Your task to perform on an android device: toggle improve location accuracy Image 0: 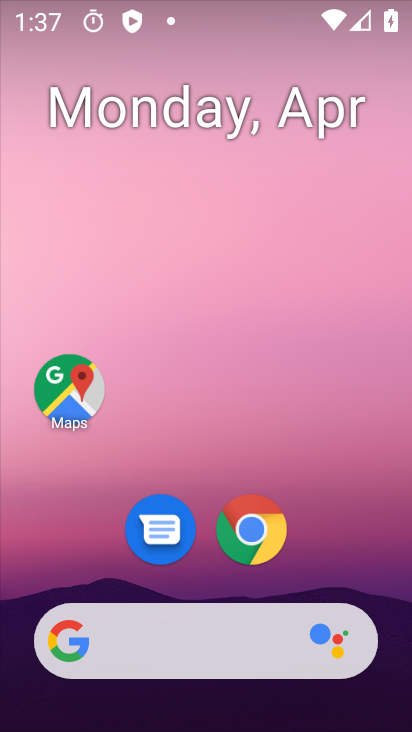
Step 0: drag from (312, 520) to (354, 186)
Your task to perform on an android device: toggle improve location accuracy Image 1: 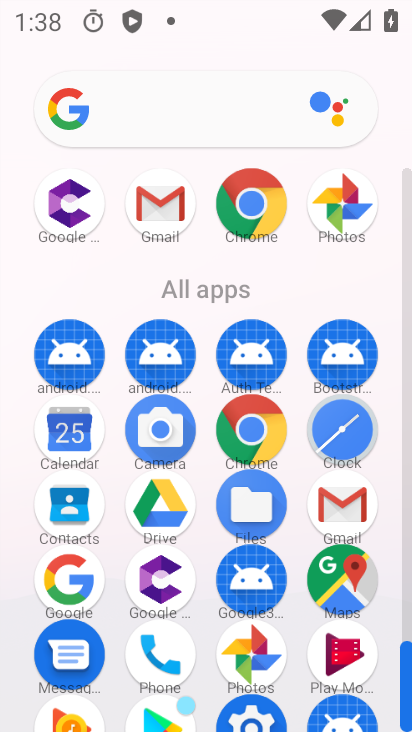
Step 1: drag from (192, 621) to (293, 188)
Your task to perform on an android device: toggle improve location accuracy Image 2: 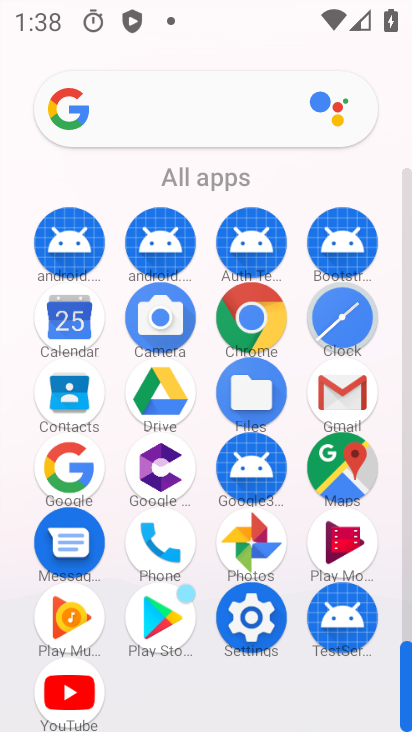
Step 2: click (251, 620)
Your task to perform on an android device: toggle improve location accuracy Image 3: 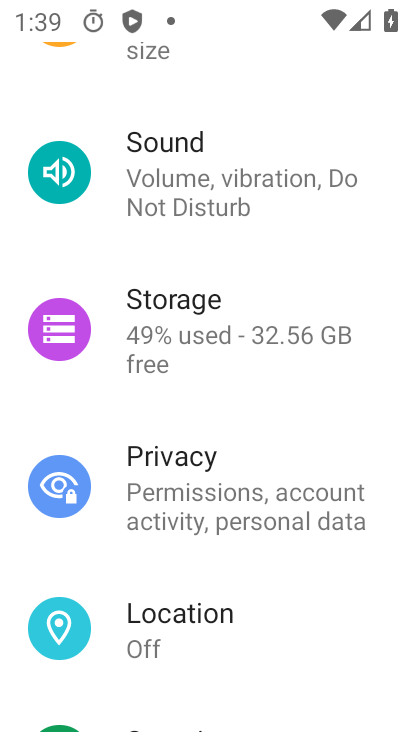
Step 3: drag from (236, 664) to (282, 328)
Your task to perform on an android device: toggle improve location accuracy Image 4: 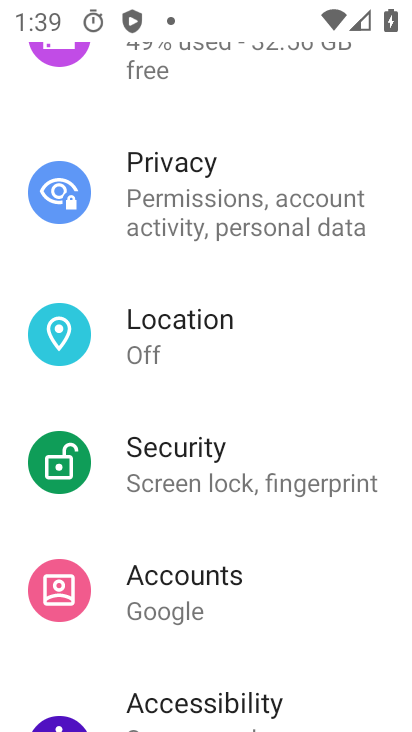
Step 4: click (203, 332)
Your task to perform on an android device: toggle improve location accuracy Image 5: 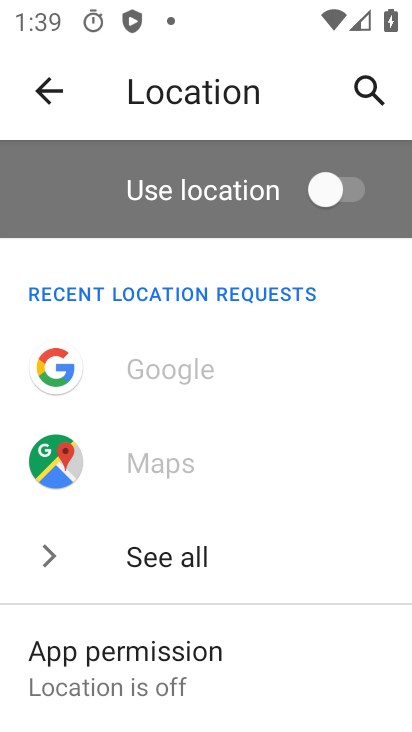
Step 5: drag from (274, 571) to (299, 242)
Your task to perform on an android device: toggle improve location accuracy Image 6: 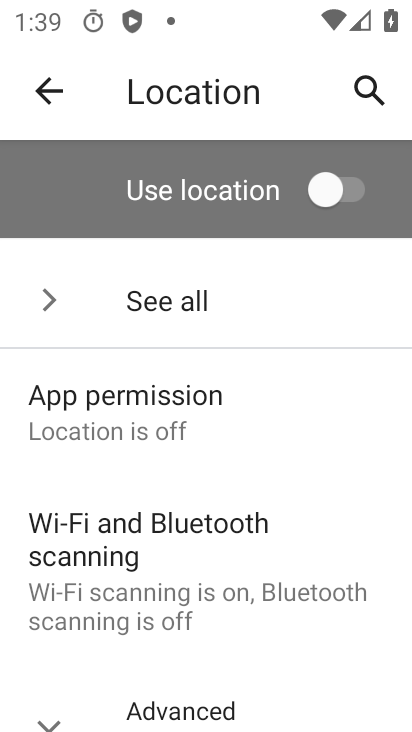
Step 6: drag from (227, 644) to (274, 315)
Your task to perform on an android device: toggle improve location accuracy Image 7: 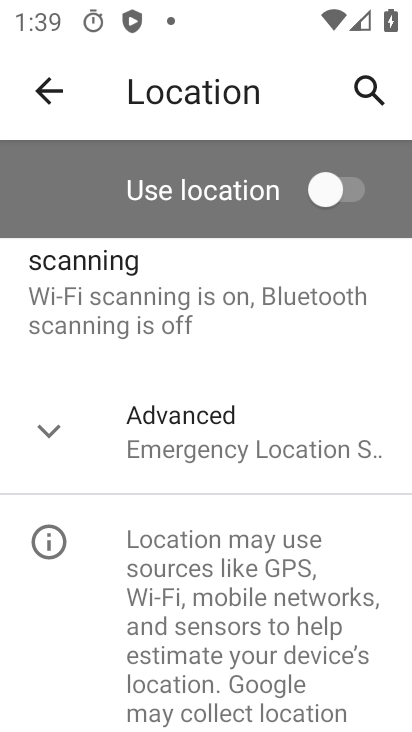
Step 7: click (240, 436)
Your task to perform on an android device: toggle improve location accuracy Image 8: 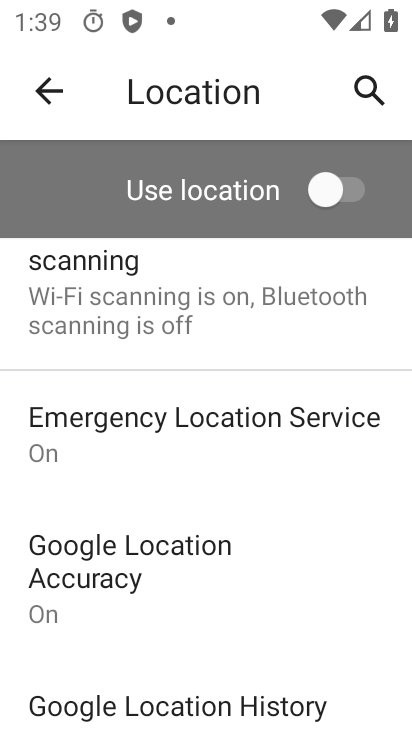
Step 8: drag from (276, 657) to (279, 456)
Your task to perform on an android device: toggle improve location accuracy Image 9: 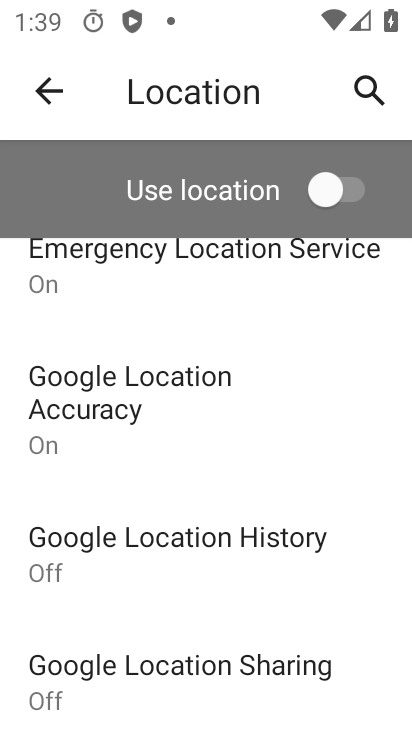
Step 9: click (226, 420)
Your task to perform on an android device: toggle improve location accuracy Image 10: 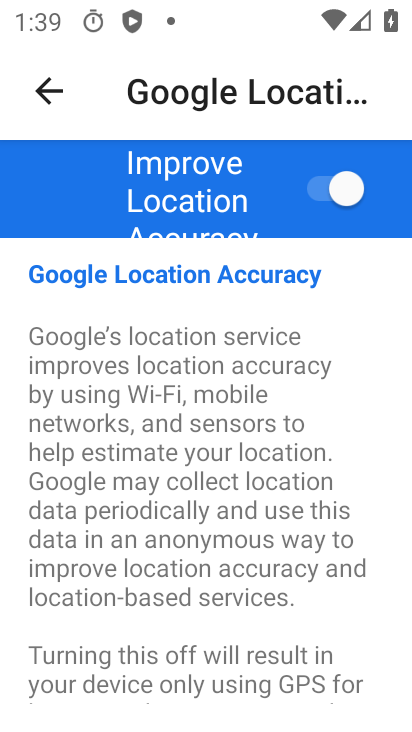
Step 10: click (315, 188)
Your task to perform on an android device: toggle improve location accuracy Image 11: 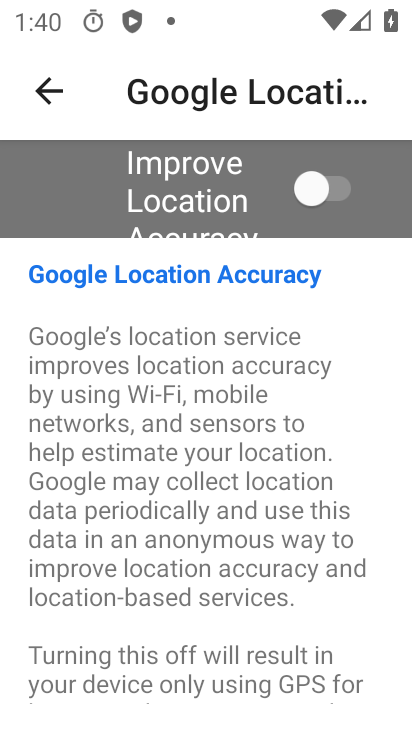
Step 11: task complete